Your task to perform on an android device: Open ESPN.com Image 0: 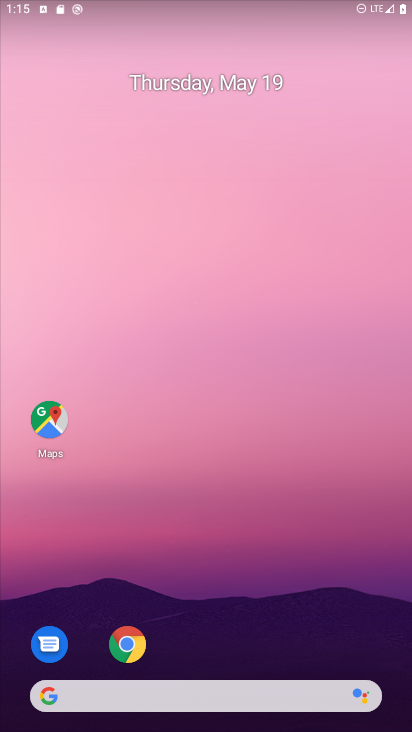
Step 0: drag from (341, 626) to (297, 35)
Your task to perform on an android device: Open ESPN.com Image 1: 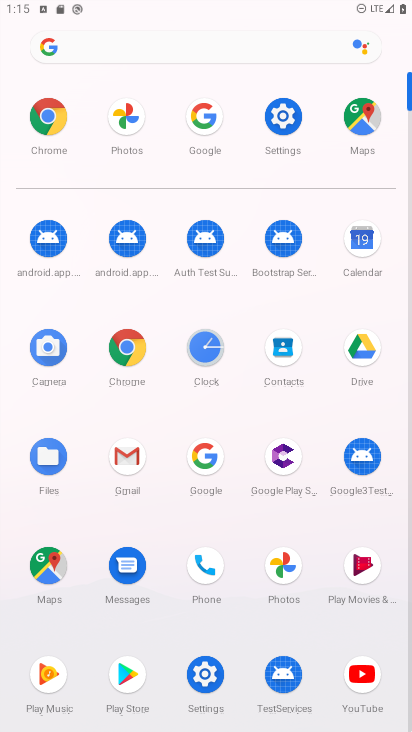
Step 1: click (122, 348)
Your task to perform on an android device: Open ESPN.com Image 2: 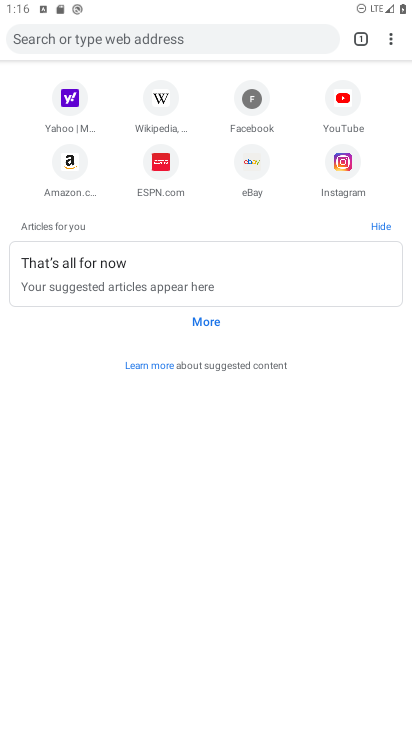
Step 2: click (146, 184)
Your task to perform on an android device: Open ESPN.com Image 3: 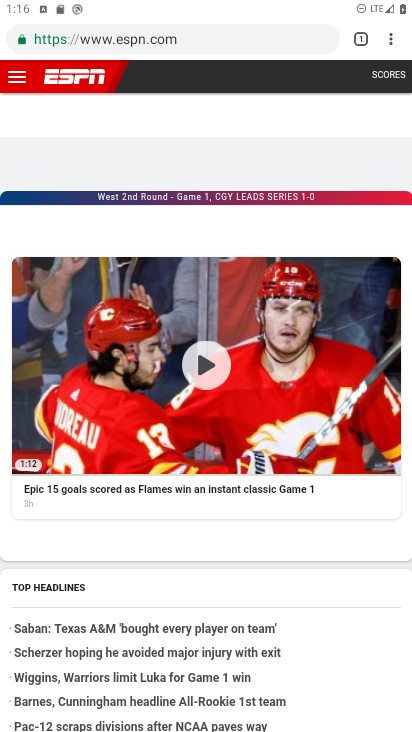
Step 3: task complete